Your task to perform on an android device: Go to Google Image 0: 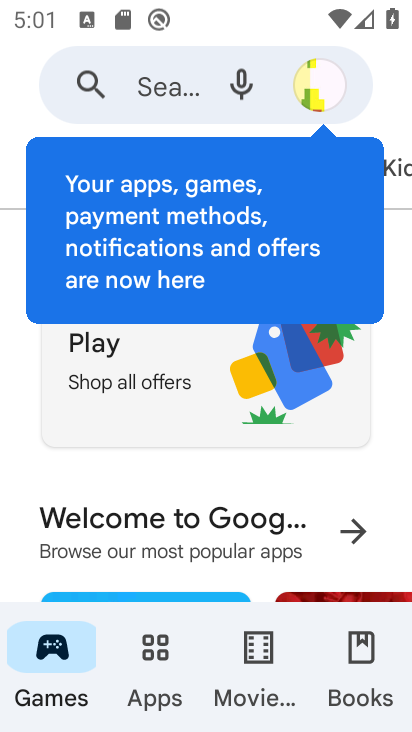
Step 0: press home button
Your task to perform on an android device: Go to Google Image 1: 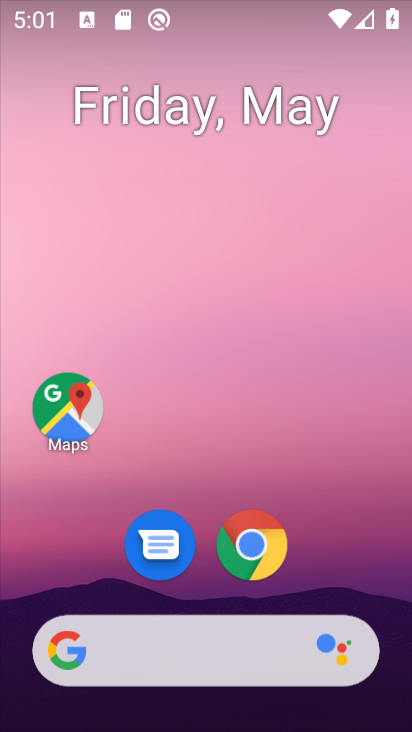
Step 1: drag from (382, 515) to (357, 180)
Your task to perform on an android device: Go to Google Image 2: 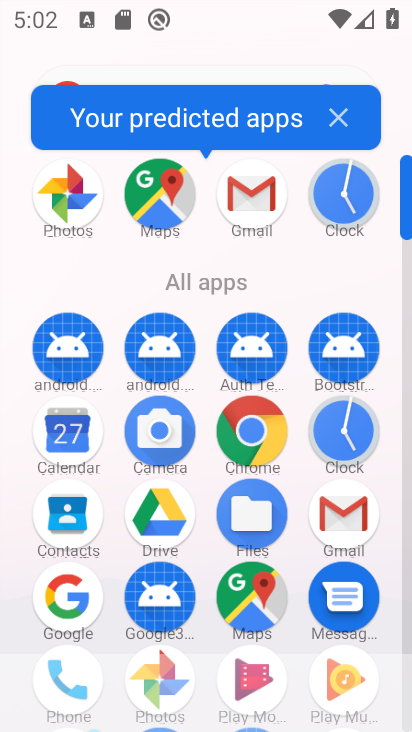
Step 2: click (83, 607)
Your task to perform on an android device: Go to Google Image 3: 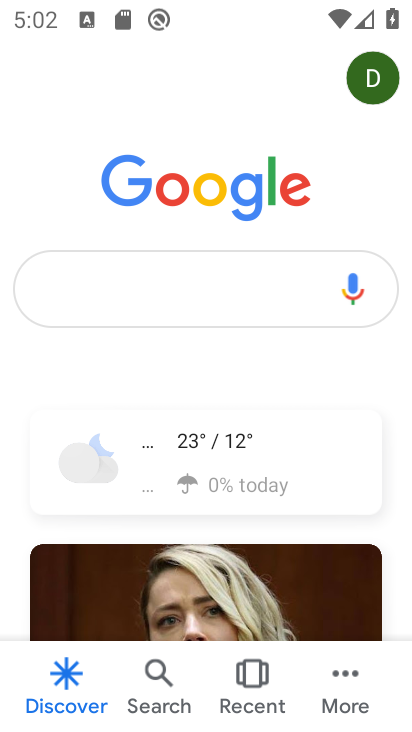
Step 3: task complete